Your task to perform on an android device: What time is it in Moscow? Image 0: 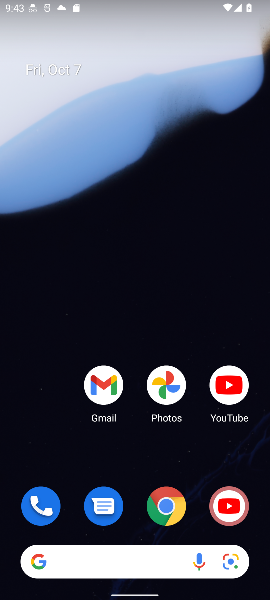
Step 0: click (169, 503)
Your task to perform on an android device: What time is it in Moscow? Image 1: 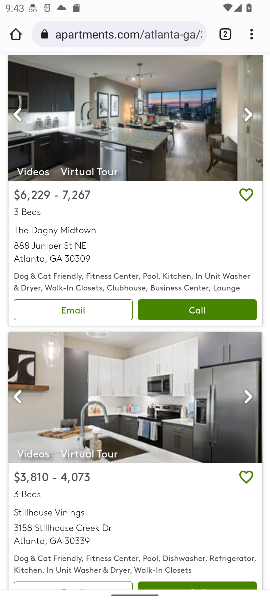
Step 1: click (160, 30)
Your task to perform on an android device: What time is it in Moscow? Image 2: 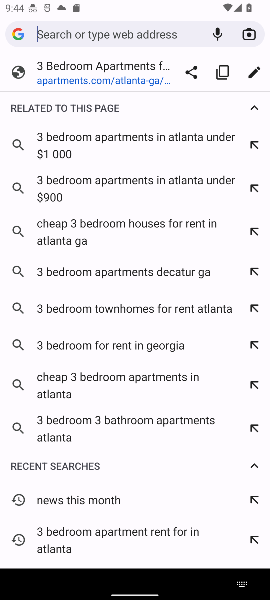
Step 2: type "What time is it in Moscow"
Your task to perform on an android device: What time is it in Moscow? Image 3: 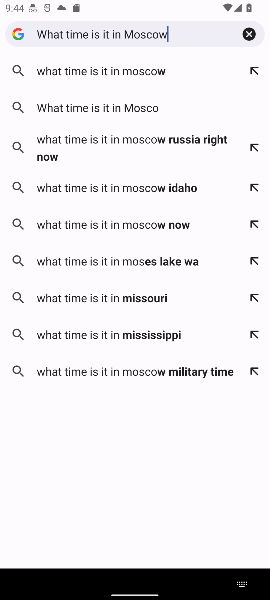
Step 3: press enter
Your task to perform on an android device: What time is it in Moscow? Image 4: 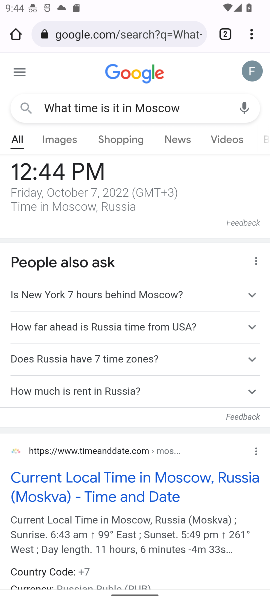
Step 4: task complete